Your task to perform on an android device: open app "Adobe Acrobat Reader: Edit PDF" (install if not already installed) Image 0: 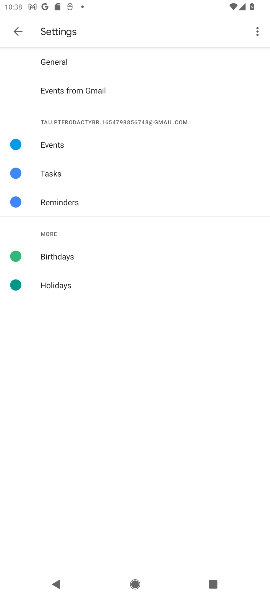
Step 0: press home button
Your task to perform on an android device: open app "Adobe Acrobat Reader: Edit PDF" (install if not already installed) Image 1: 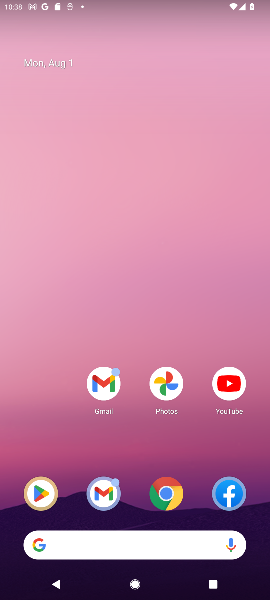
Step 1: drag from (62, 519) to (95, 10)
Your task to perform on an android device: open app "Adobe Acrobat Reader: Edit PDF" (install if not already installed) Image 2: 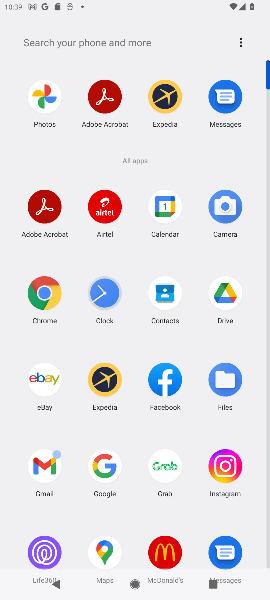
Step 2: click (109, 104)
Your task to perform on an android device: open app "Adobe Acrobat Reader: Edit PDF" (install if not already installed) Image 3: 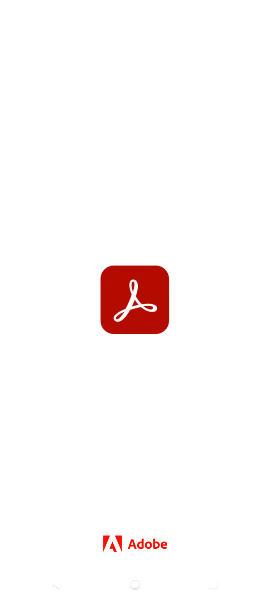
Step 3: task complete